Your task to perform on an android device: Go to battery settings Image 0: 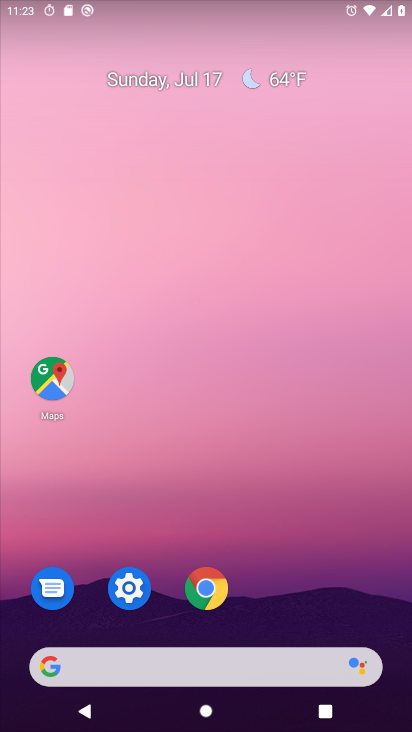
Step 0: drag from (243, 642) to (228, 345)
Your task to perform on an android device: Go to battery settings Image 1: 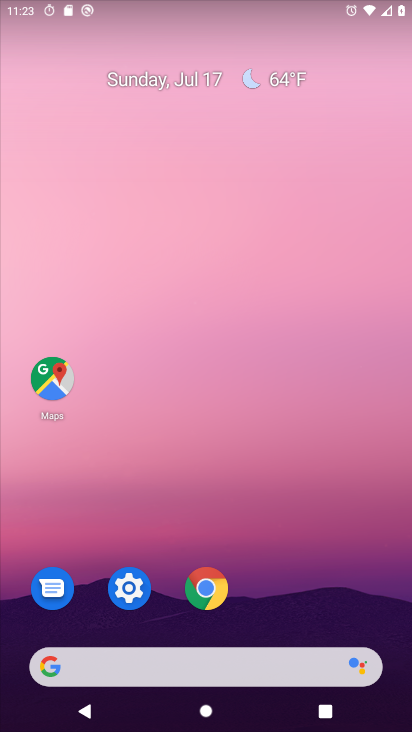
Step 1: drag from (155, 685) to (34, 0)
Your task to perform on an android device: Go to battery settings Image 2: 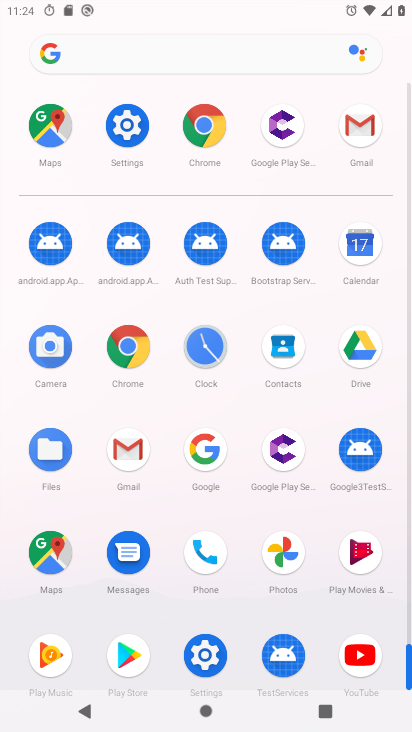
Step 2: drag from (298, 527) to (293, 4)
Your task to perform on an android device: Go to battery settings Image 3: 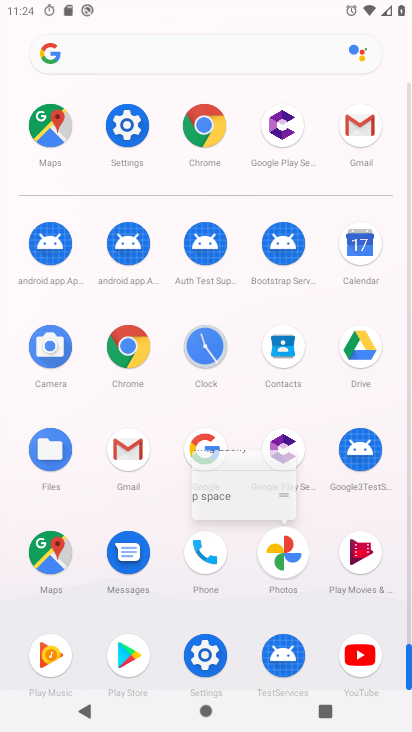
Step 3: click (201, 652)
Your task to perform on an android device: Go to battery settings Image 4: 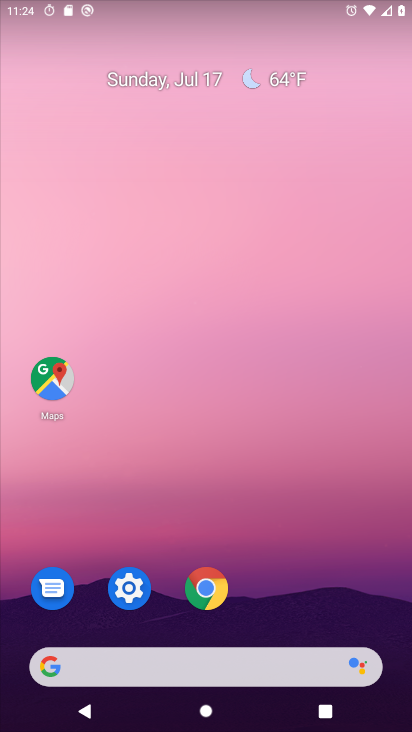
Step 4: drag from (252, 645) to (250, 289)
Your task to perform on an android device: Go to battery settings Image 5: 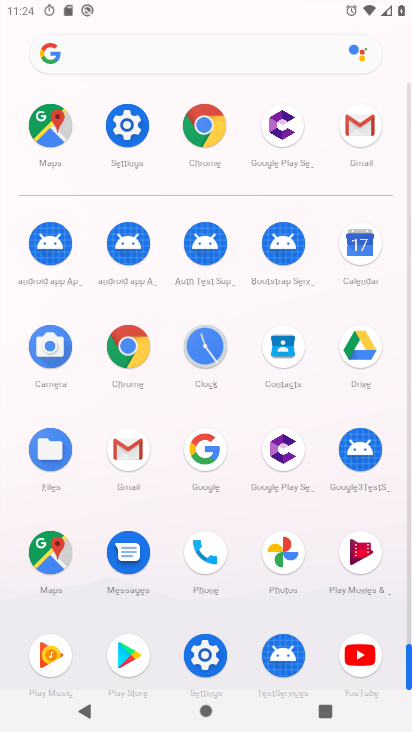
Step 5: drag from (236, 667) to (151, 239)
Your task to perform on an android device: Go to battery settings Image 6: 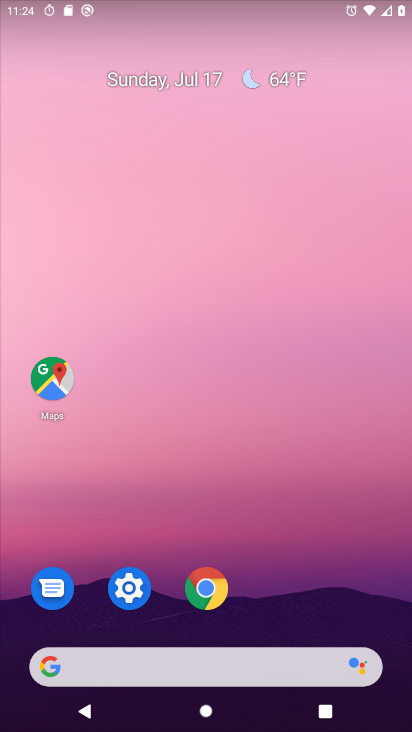
Step 6: drag from (208, 681) to (95, 213)
Your task to perform on an android device: Go to battery settings Image 7: 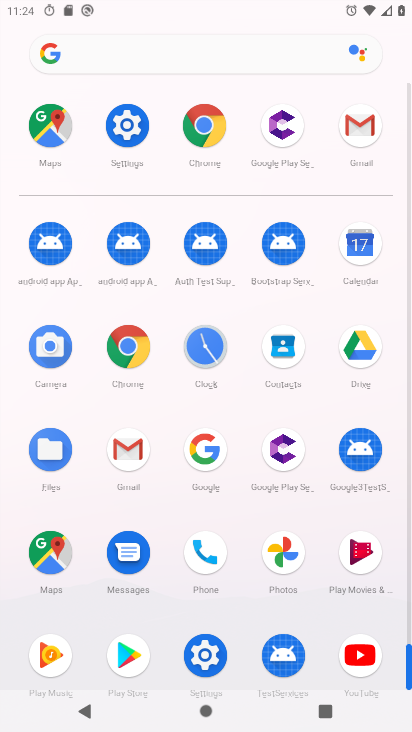
Step 7: drag from (254, 654) to (168, 23)
Your task to perform on an android device: Go to battery settings Image 8: 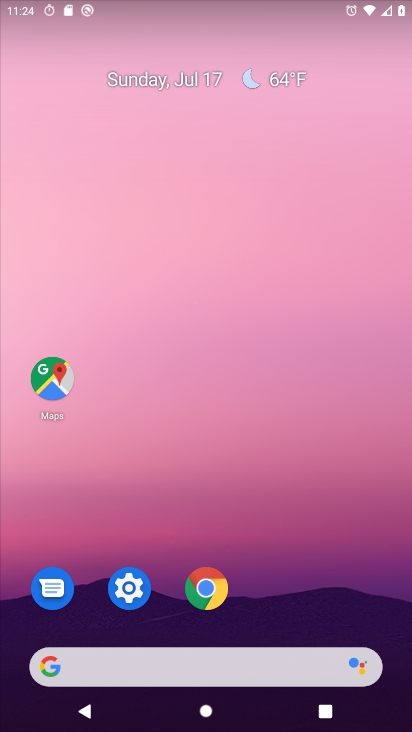
Step 8: drag from (253, 642) to (216, 54)
Your task to perform on an android device: Go to battery settings Image 9: 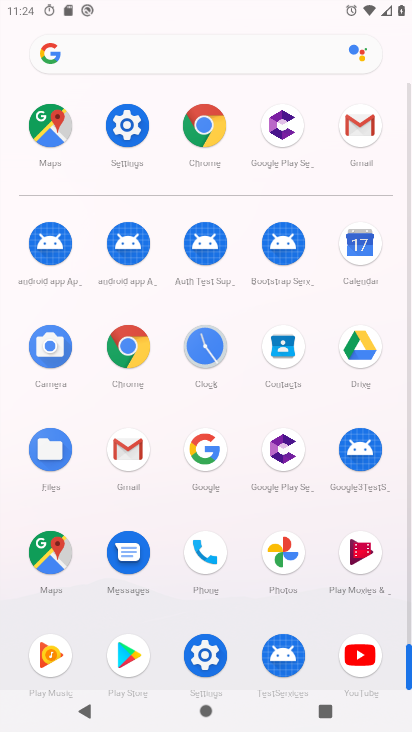
Step 9: drag from (208, 647) to (195, 23)
Your task to perform on an android device: Go to battery settings Image 10: 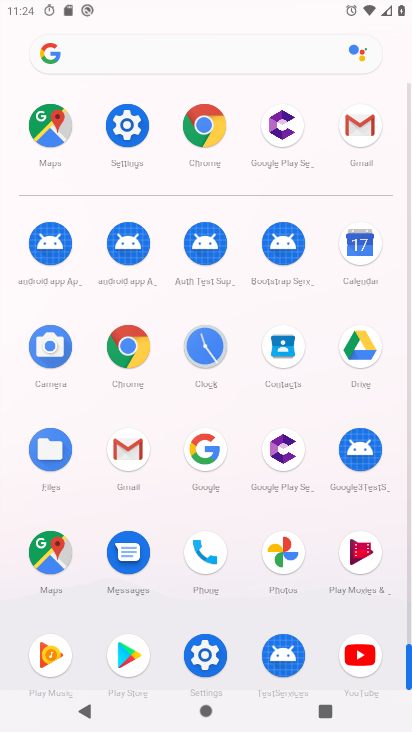
Step 10: click (205, 653)
Your task to perform on an android device: Go to battery settings Image 11: 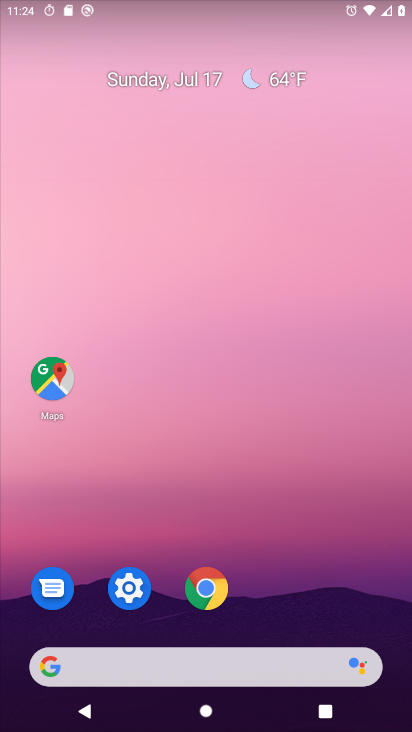
Step 11: click (205, 653)
Your task to perform on an android device: Go to battery settings Image 12: 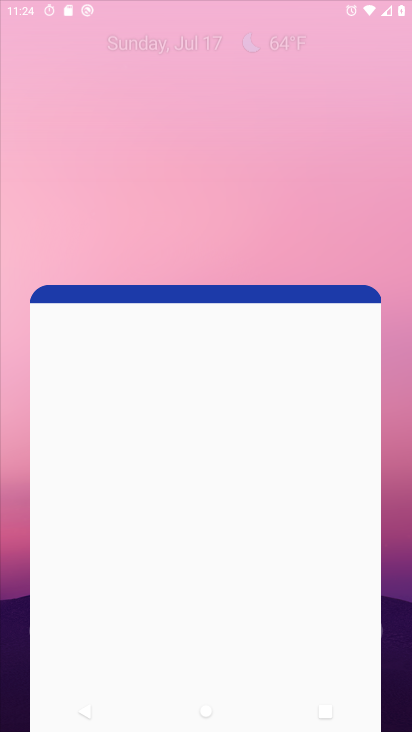
Step 12: click (204, 653)
Your task to perform on an android device: Go to battery settings Image 13: 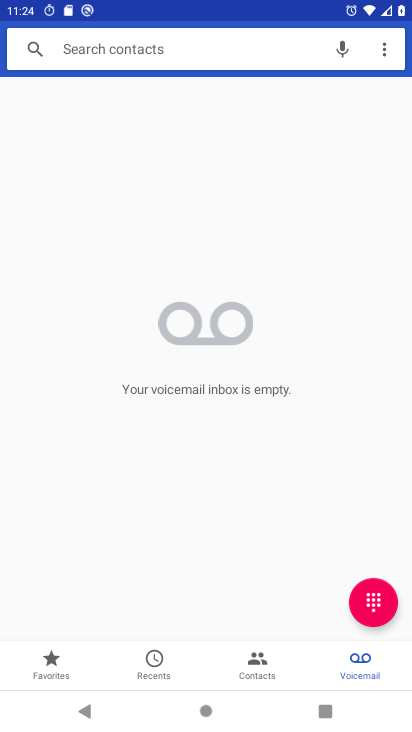
Step 13: press back button
Your task to perform on an android device: Go to battery settings Image 14: 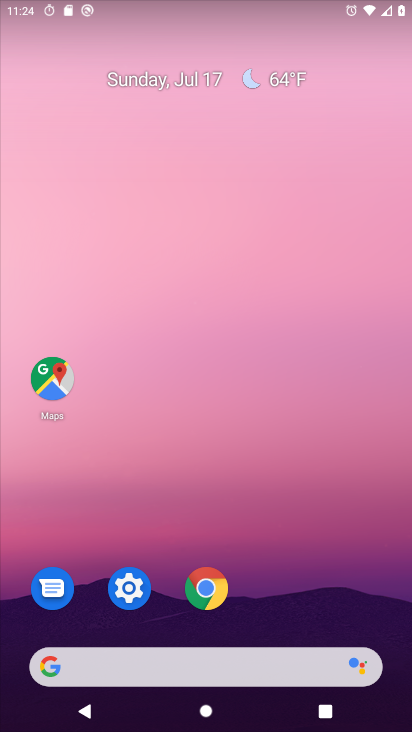
Step 14: drag from (244, 658) to (157, 77)
Your task to perform on an android device: Go to battery settings Image 15: 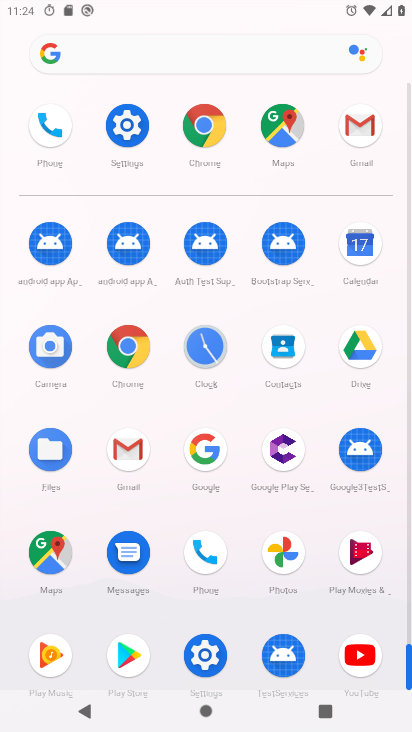
Step 15: click (127, 126)
Your task to perform on an android device: Go to battery settings Image 16: 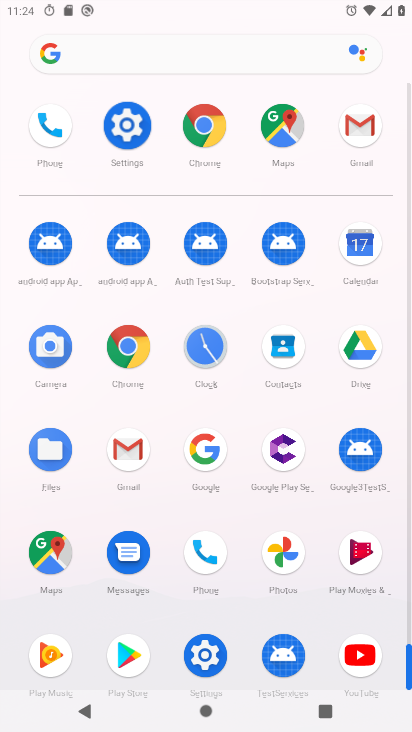
Step 16: click (128, 127)
Your task to perform on an android device: Go to battery settings Image 17: 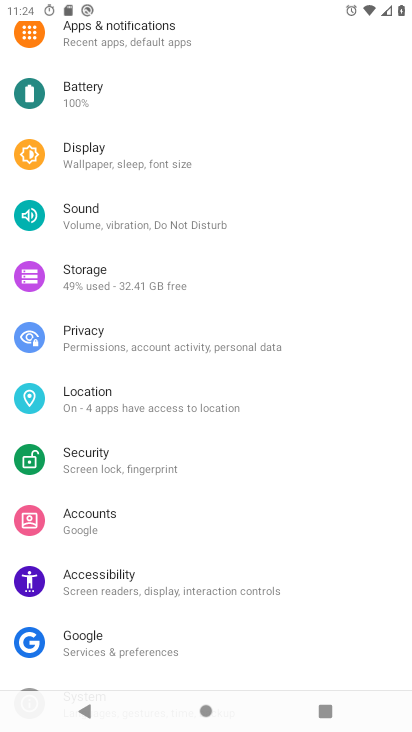
Step 17: click (96, 100)
Your task to perform on an android device: Go to battery settings Image 18: 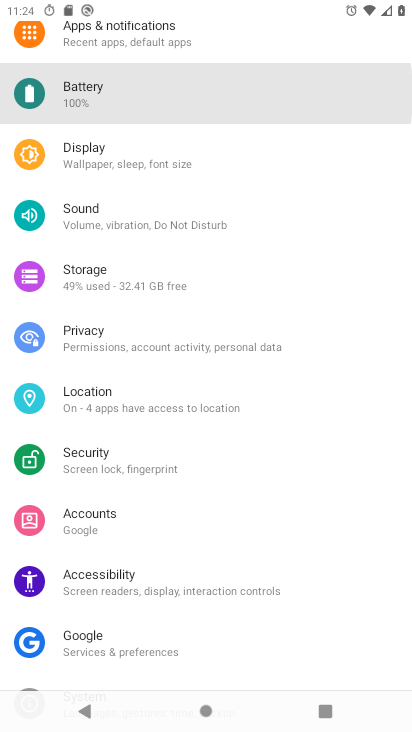
Step 18: click (95, 99)
Your task to perform on an android device: Go to battery settings Image 19: 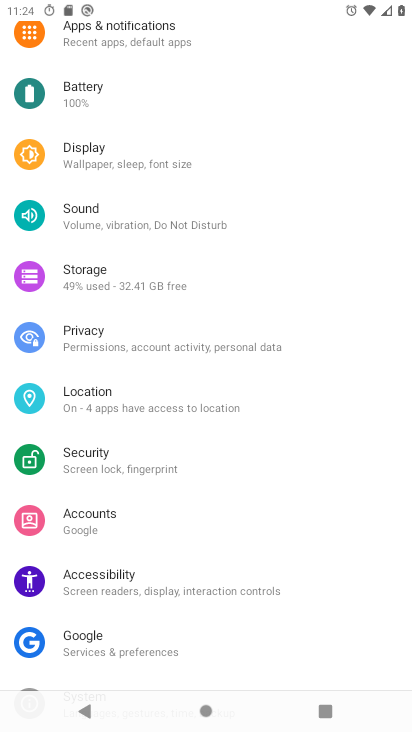
Step 19: click (95, 99)
Your task to perform on an android device: Go to battery settings Image 20: 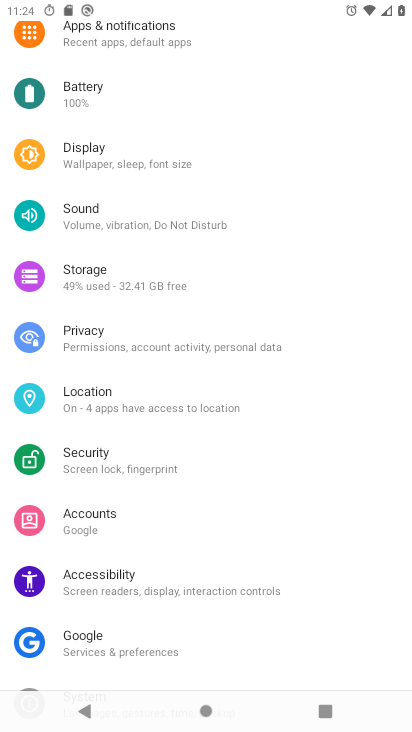
Step 20: click (95, 99)
Your task to perform on an android device: Go to battery settings Image 21: 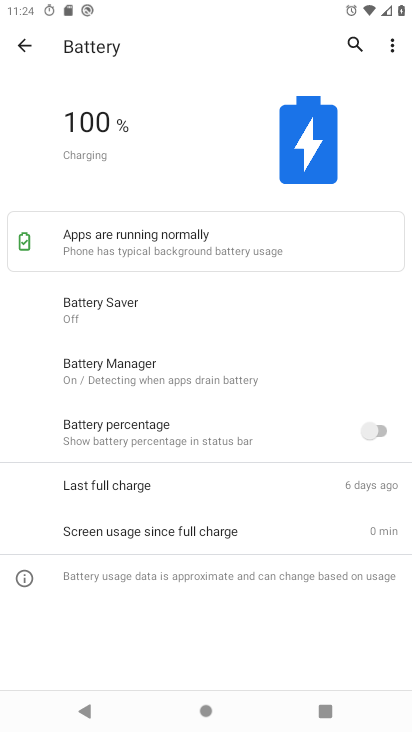
Step 21: task complete